Your task to perform on an android device: Go to Wikipedia Image 0: 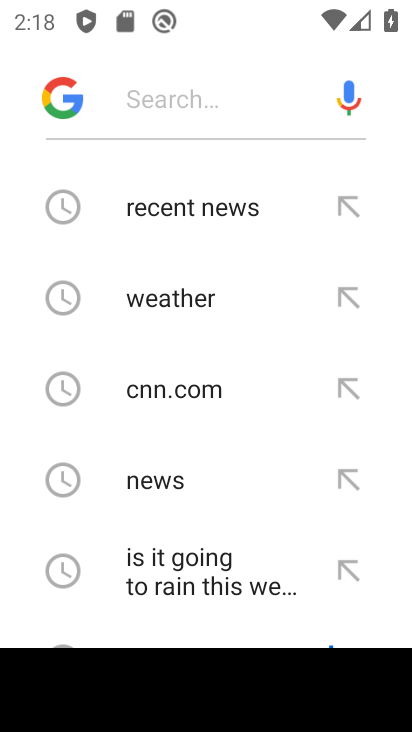
Step 0: press home button
Your task to perform on an android device: Go to Wikipedia Image 1: 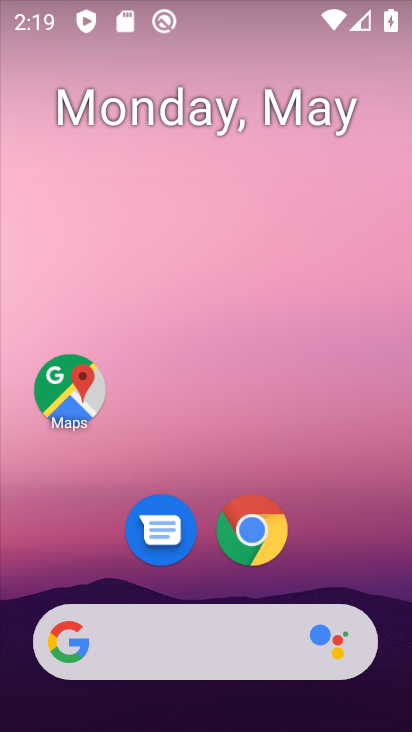
Step 1: drag from (317, 709) to (252, 73)
Your task to perform on an android device: Go to Wikipedia Image 2: 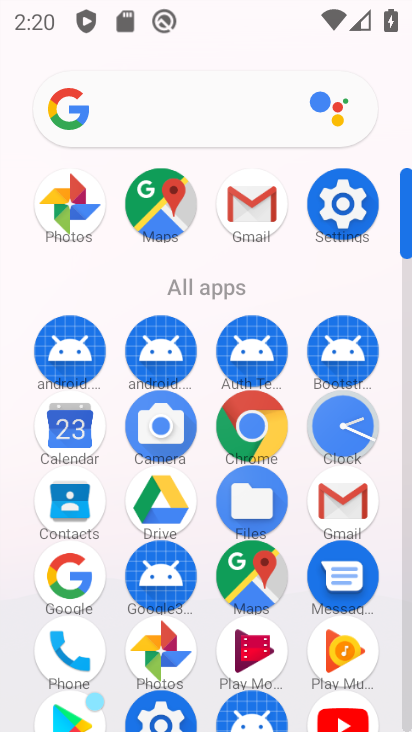
Step 2: click (267, 433)
Your task to perform on an android device: Go to Wikipedia Image 3: 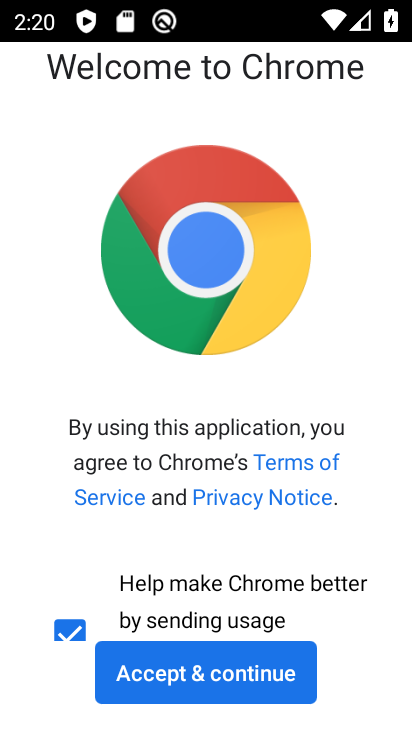
Step 3: click (204, 689)
Your task to perform on an android device: Go to Wikipedia Image 4: 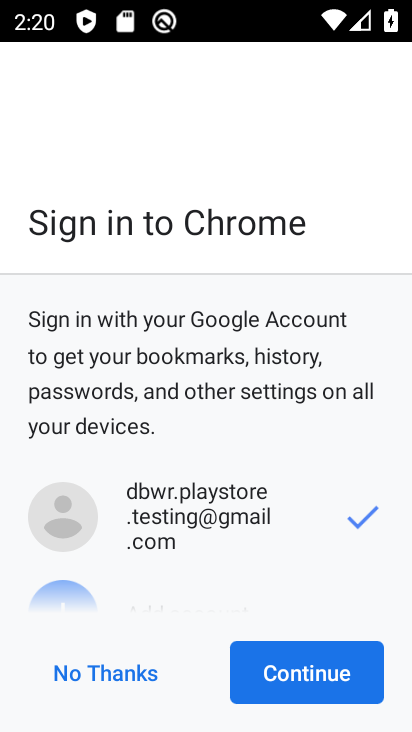
Step 4: click (314, 663)
Your task to perform on an android device: Go to Wikipedia Image 5: 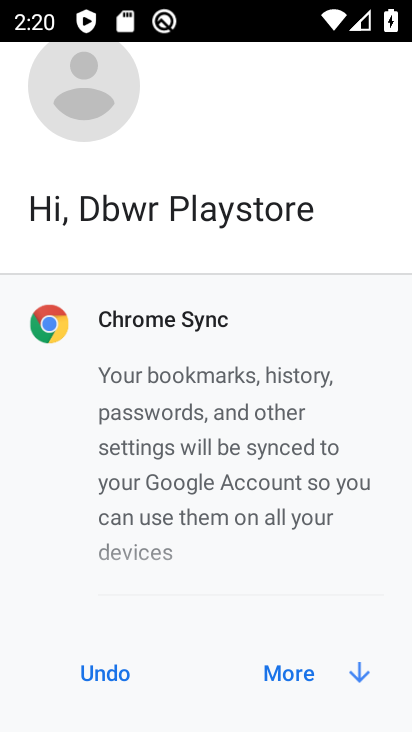
Step 5: click (347, 654)
Your task to perform on an android device: Go to Wikipedia Image 6: 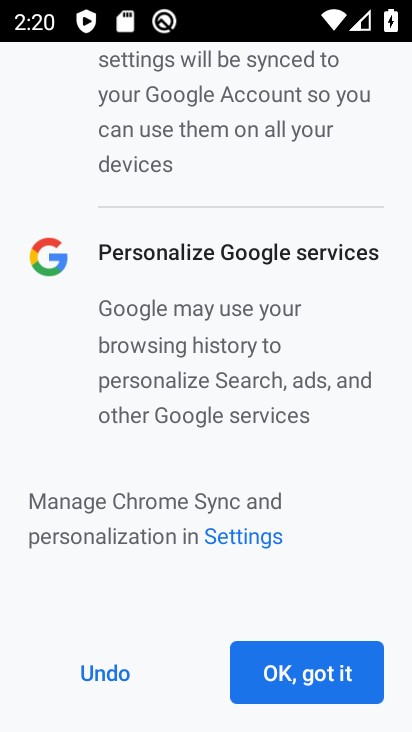
Step 6: click (298, 659)
Your task to perform on an android device: Go to Wikipedia Image 7: 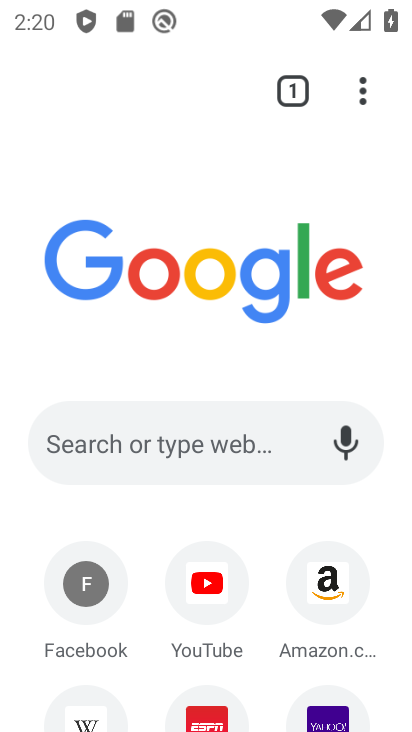
Step 7: click (97, 721)
Your task to perform on an android device: Go to Wikipedia Image 8: 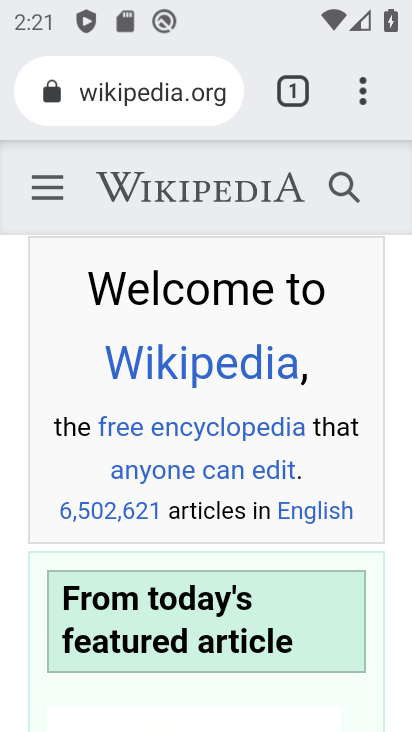
Step 8: task complete